Your task to perform on an android device: show emergency info Image 0: 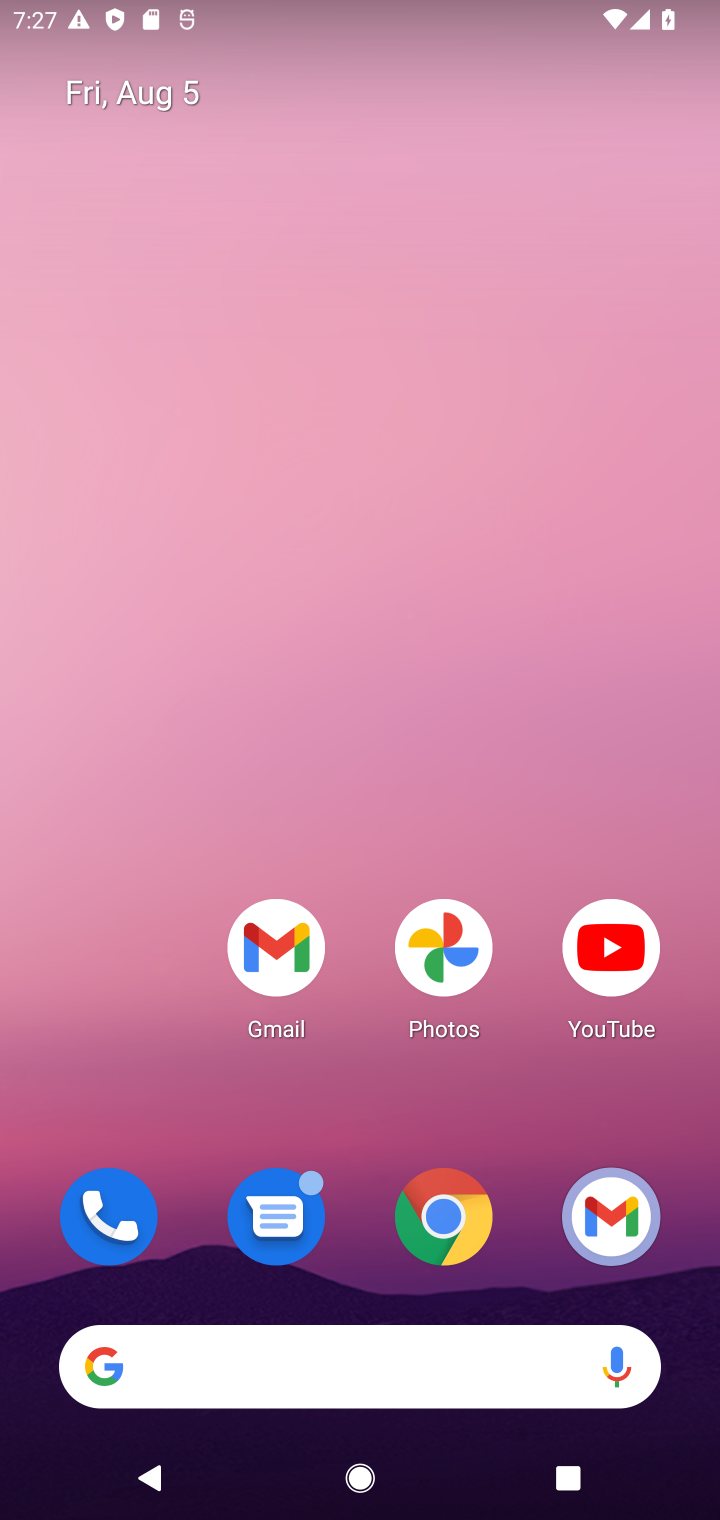
Step 0: drag from (165, 1113) to (39, 221)
Your task to perform on an android device: show emergency info Image 1: 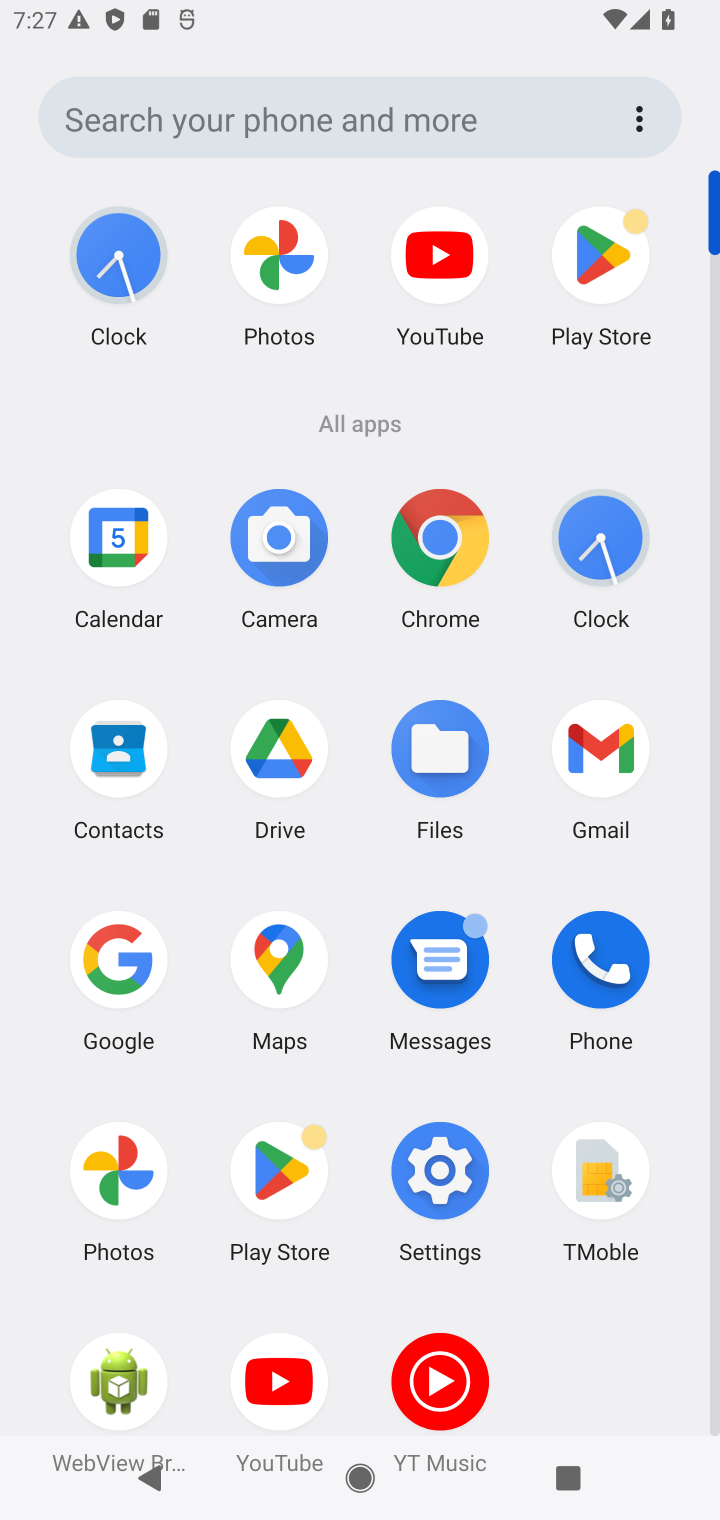
Step 1: click (405, 1163)
Your task to perform on an android device: show emergency info Image 2: 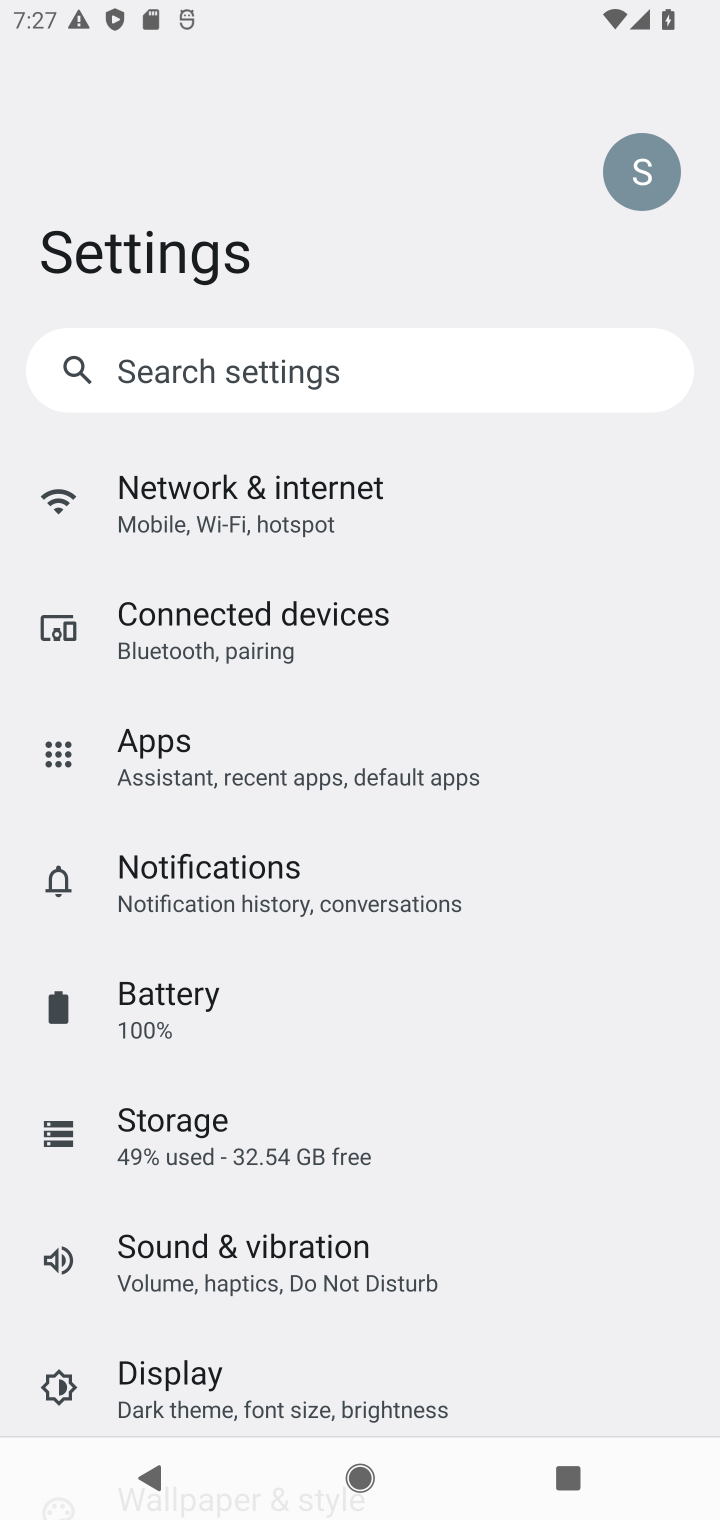
Step 2: drag from (282, 1051) to (89, 241)
Your task to perform on an android device: show emergency info Image 3: 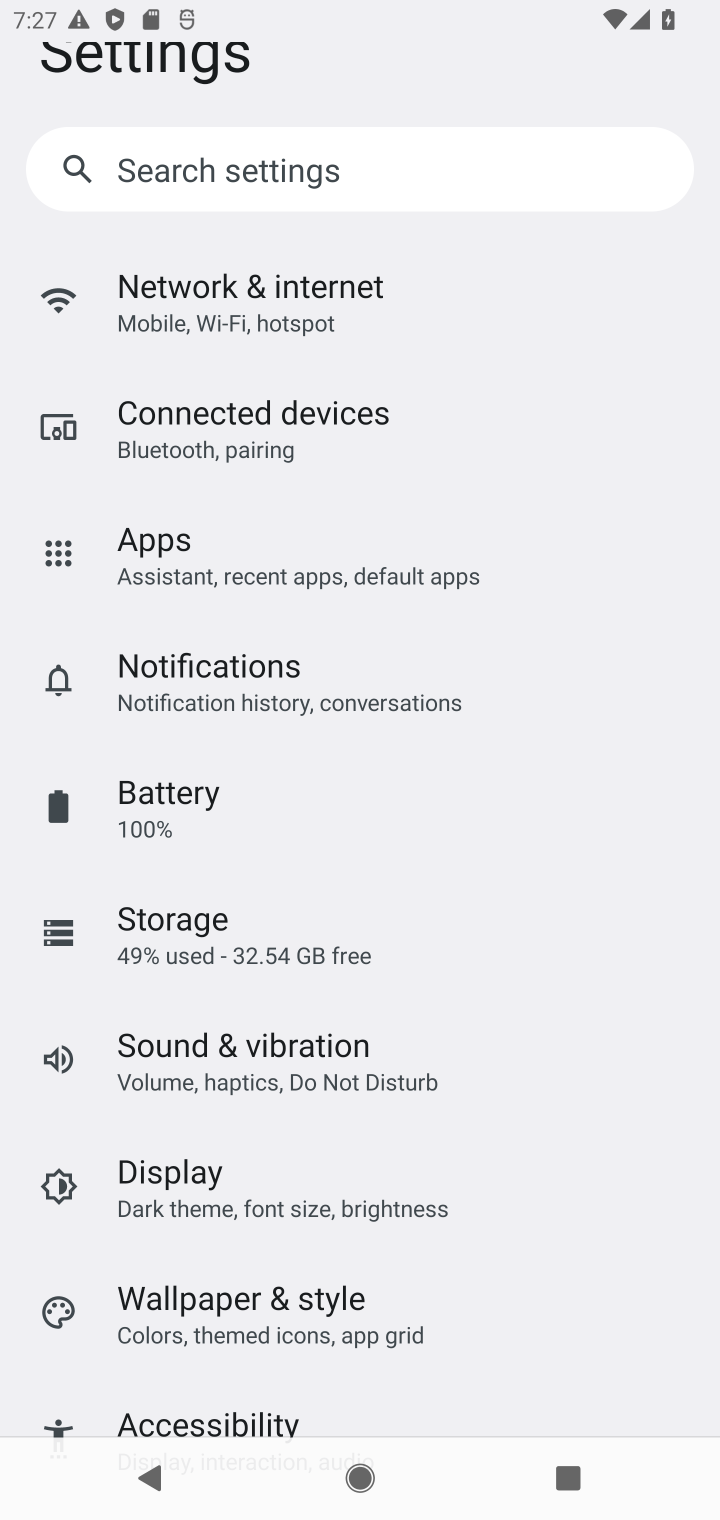
Step 3: drag from (178, 1228) to (122, 516)
Your task to perform on an android device: show emergency info Image 4: 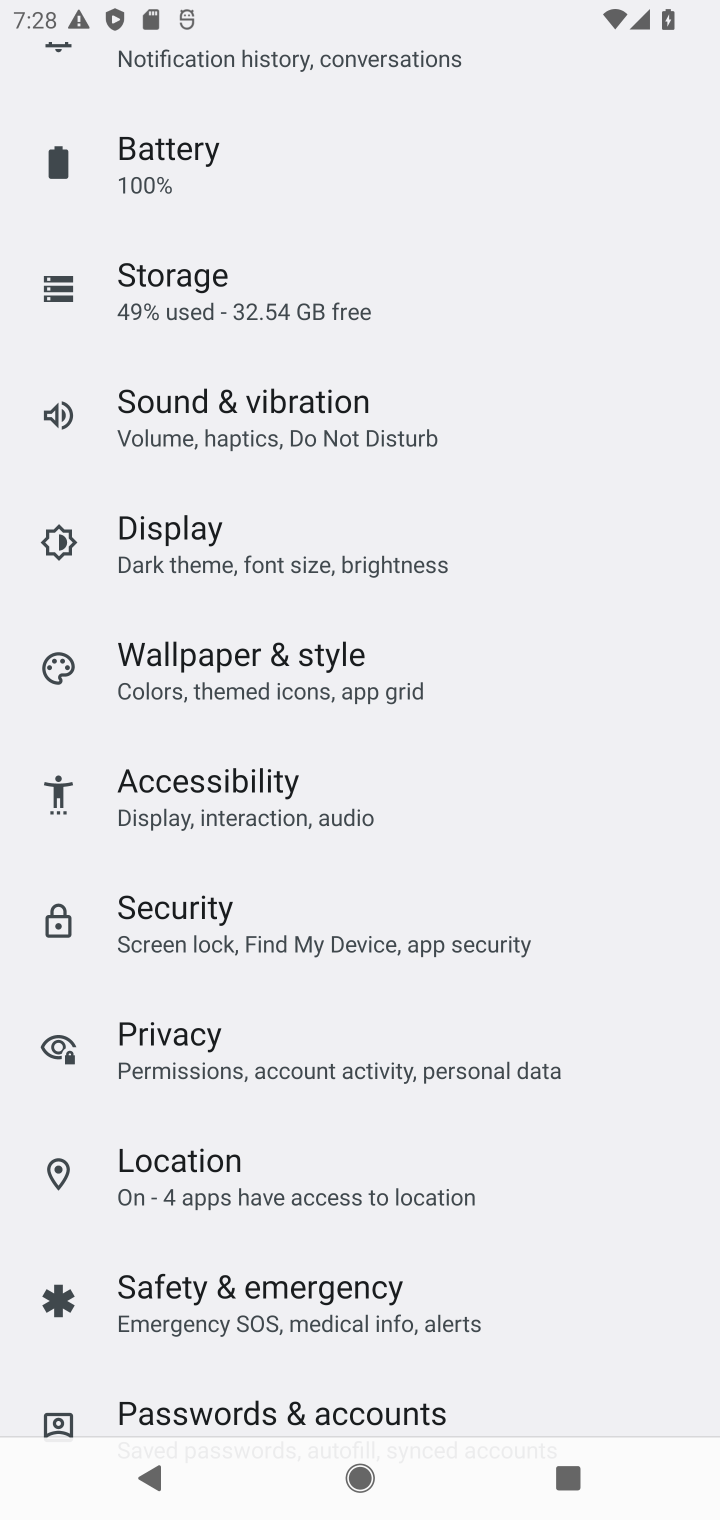
Step 4: drag from (137, 1296) to (48, 671)
Your task to perform on an android device: show emergency info Image 5: 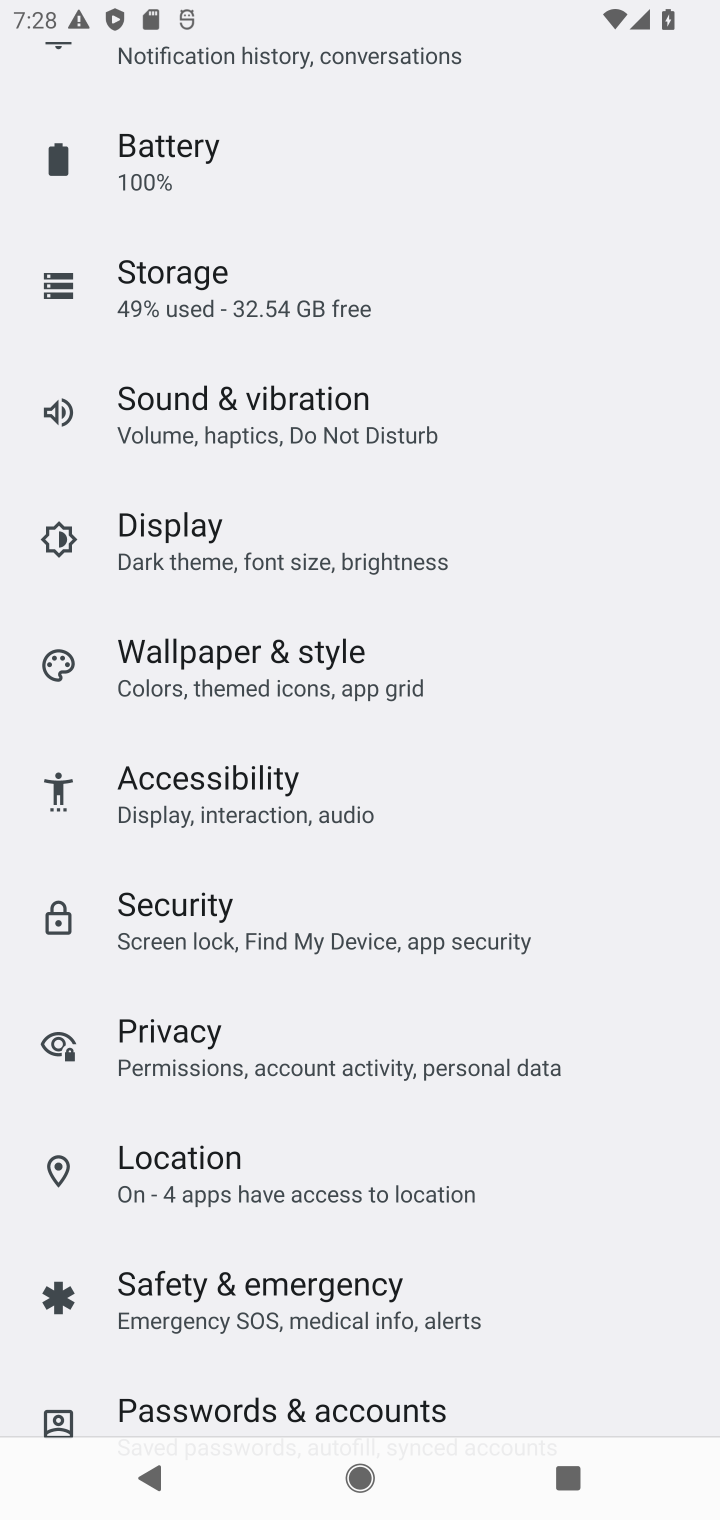
Step 5: click (381, 1309)
Your task to perform on an android device: show emergency info Image 6: 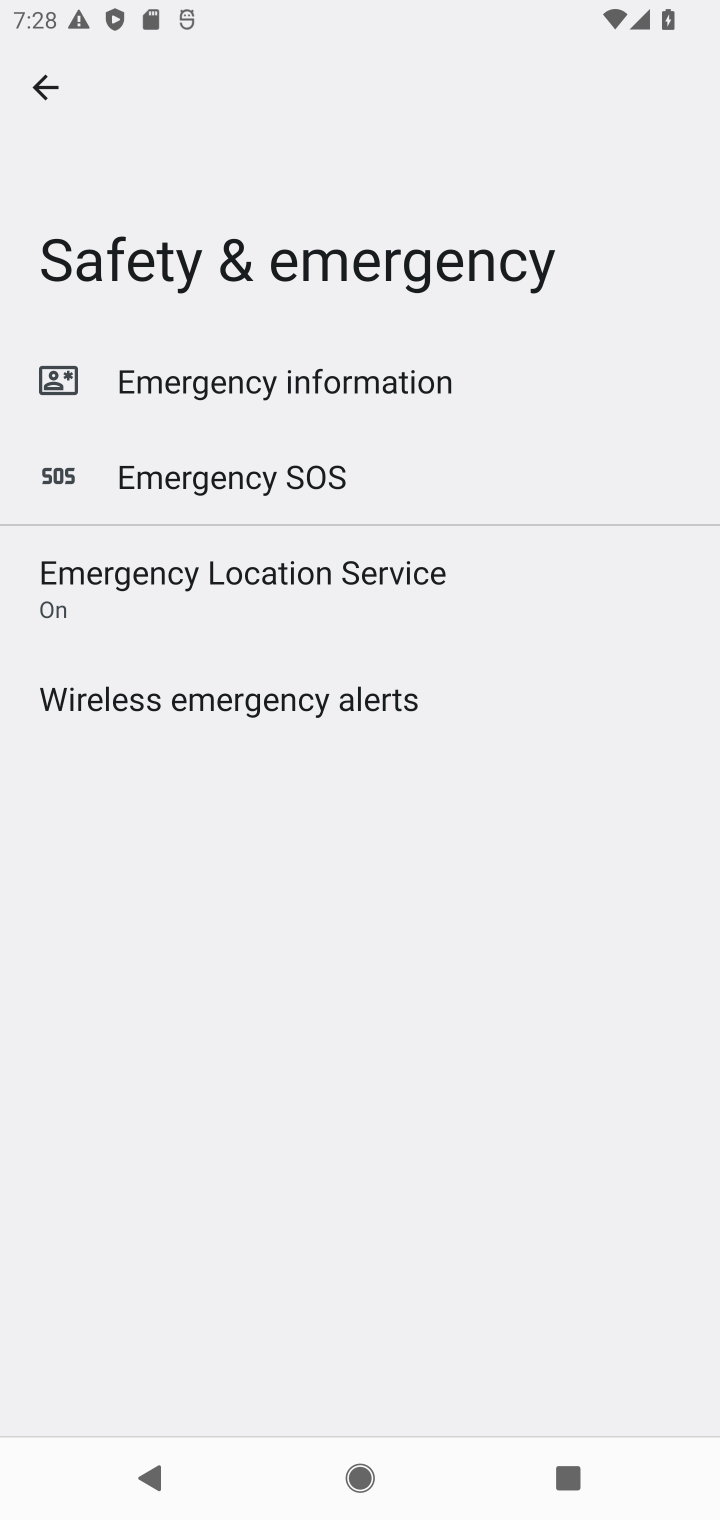
Step 6: click (452, 363)
Your task to perform on an android device: show emergency info Image 7: 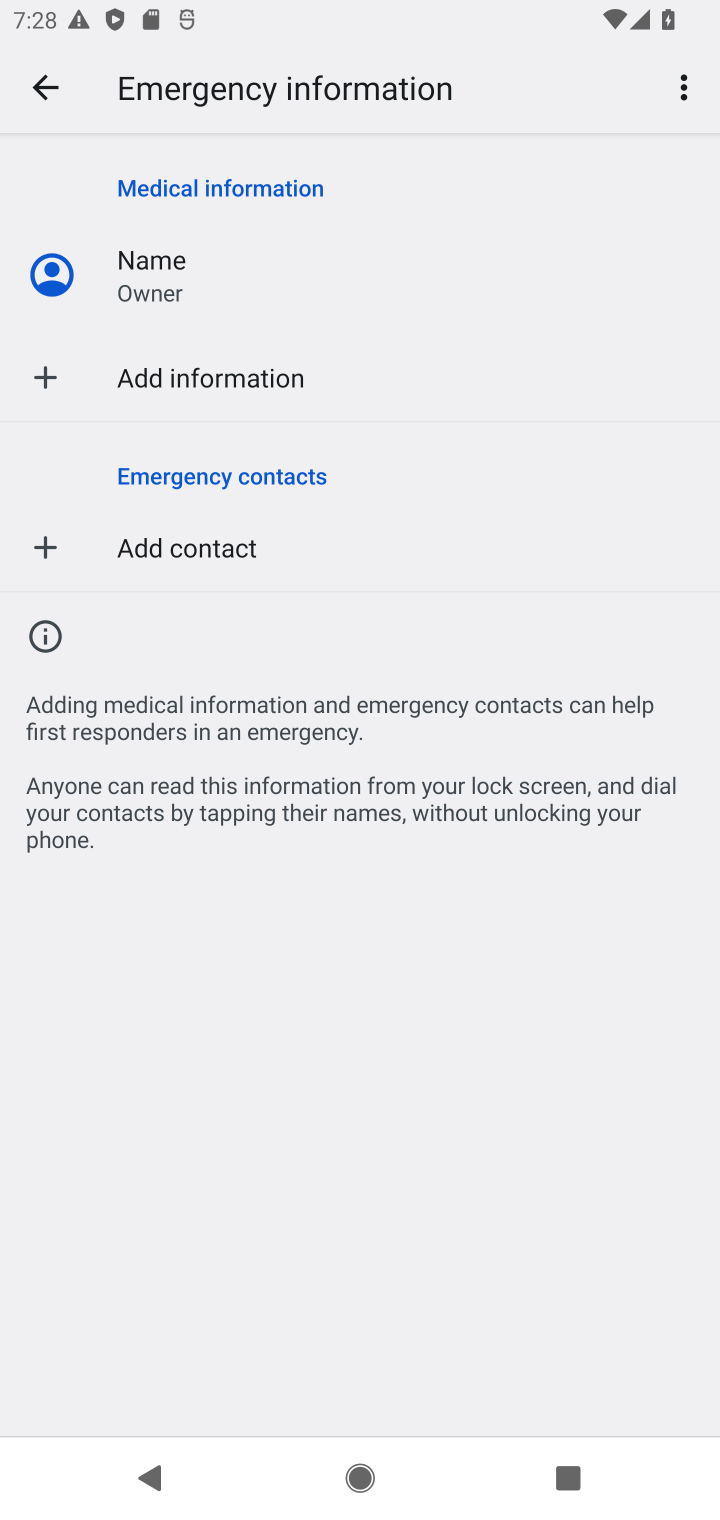
Step 7: task complete